Your task to perform on an android device: Go to location settings Image 0: 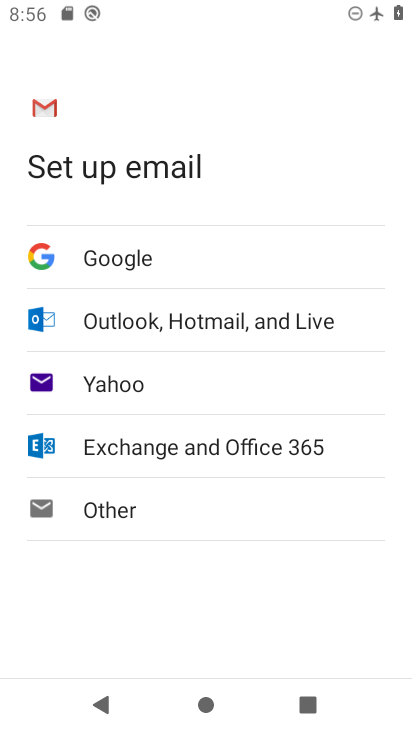
Step 0: press home button
Your task to perform on an android device: Go to location settings Image 1: 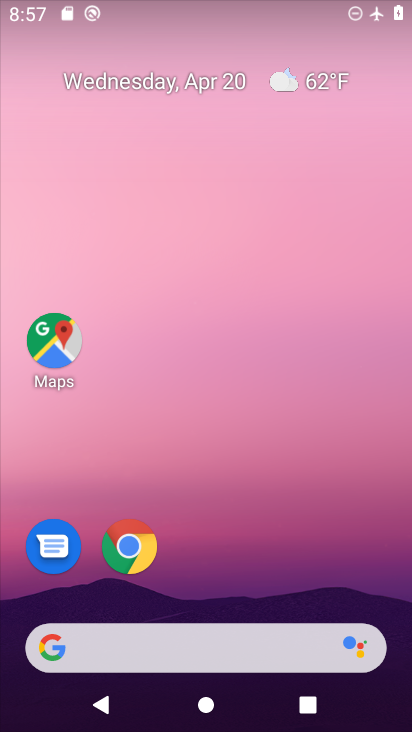
Step 1: drag from (256, 510) to (246, 105)
Your task to perform on an android device: Go to location settings Image 2: 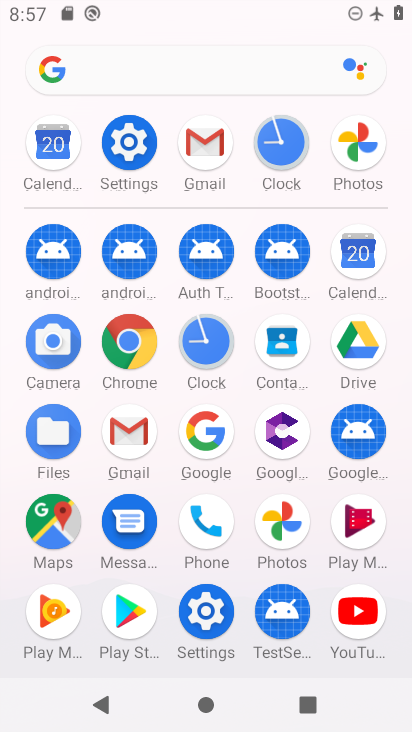
Step 2: click (143, 143)
Your task to perform on an android device: Go to location settings Image 3: 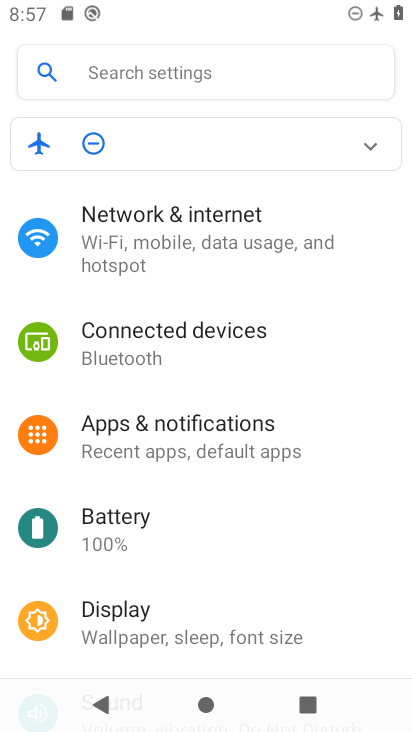
Step 3: drag from (214, 534) to (244, 95)
Your task to perform on an android device: Go to location settings Image 4: 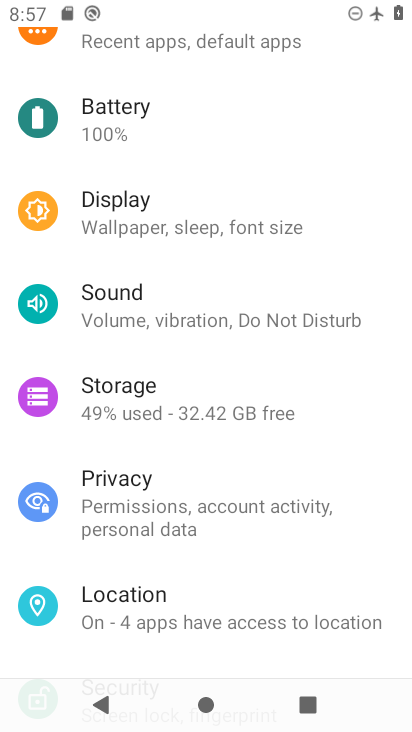
Step 4: click (218, 606)
Your task to perform on an android device: Go to location settings Image 5: 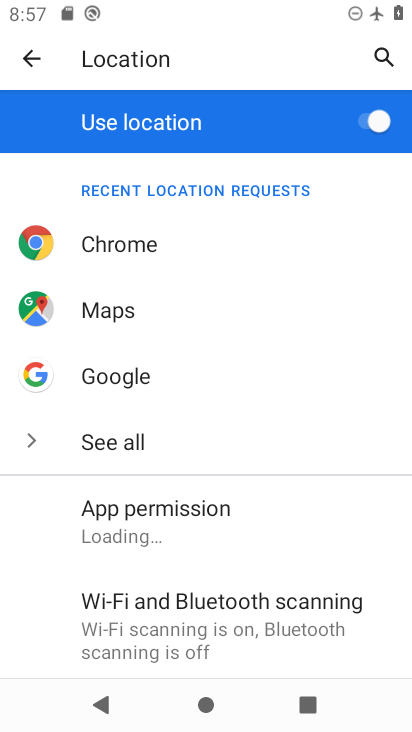
Step 5: task complete